Your task to perform on an android device: see sites visited before in the chrome app Image 0: 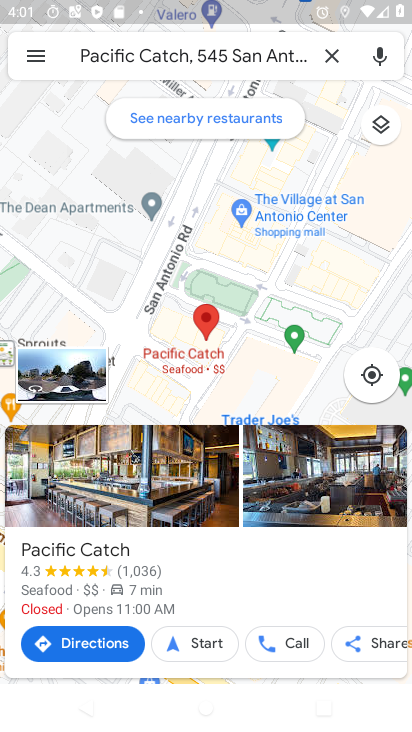
Step 0: press home button
Your task to perform on an android device: see sites visited before in the chrome app Image 1: 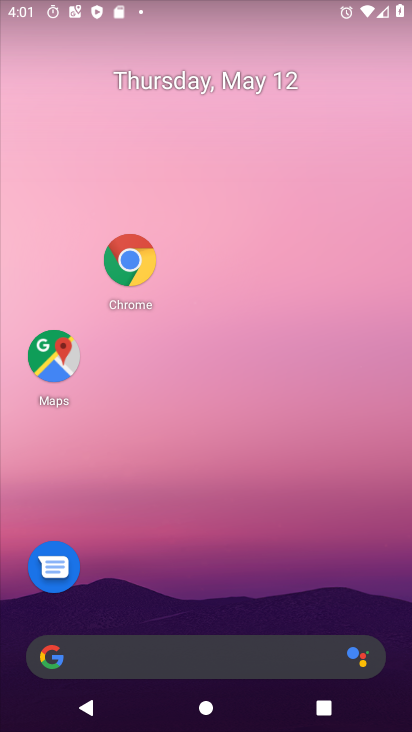
Step 1: click (129, 257)
Your task to perform on an android device: see sites visited before in the chrome app Image 2: 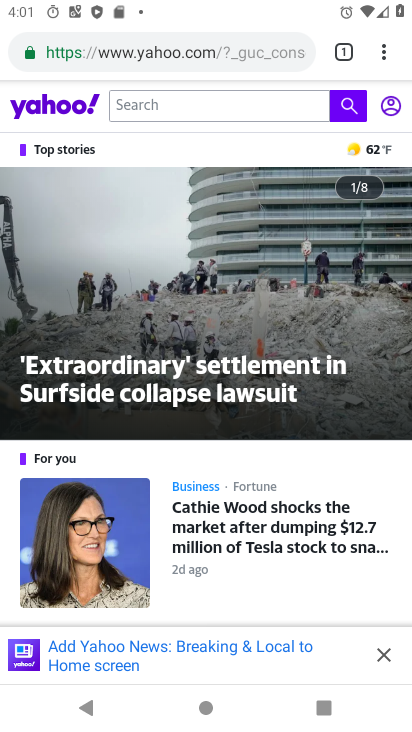
Step 2: drag from (235, 509) to (237, 279)
Your task to perform on an android device: see sites visited before in the chrome app Image 3: 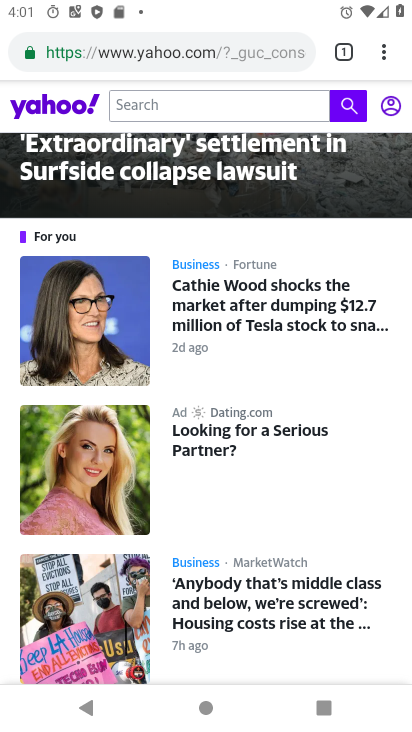
Step 3: click (351, 55)
Your task to perform on an android device: see sites visited before in the chrome app Image 4: 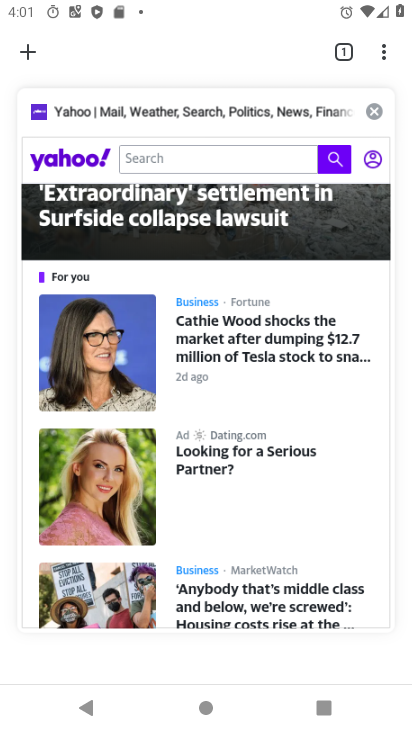
Step 4: task complete